Your task to perform on an android device: turn off smart reply in the gmail app Image 0: 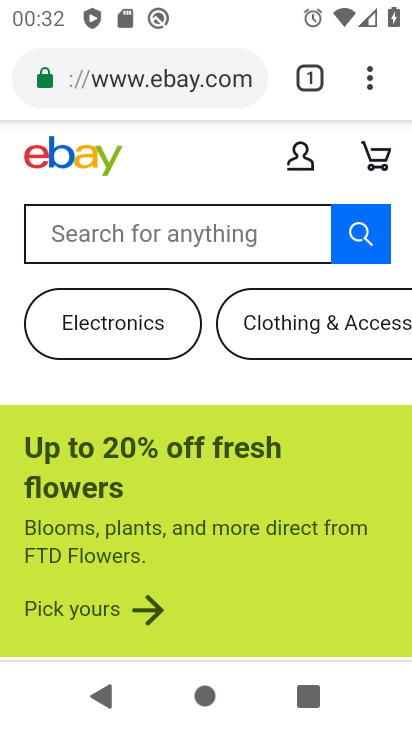
Step 0: press home button
Your task to perform on an android device: turn off smart reply in the gmail app Image 1: 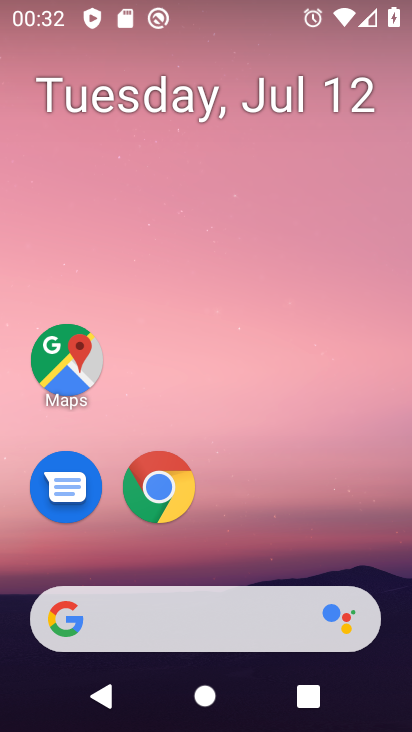
Step 1: drag from (337, 548) to (329, 152)
Your task to perform on an android device: turn off smart reply in the gmail app Image 2: 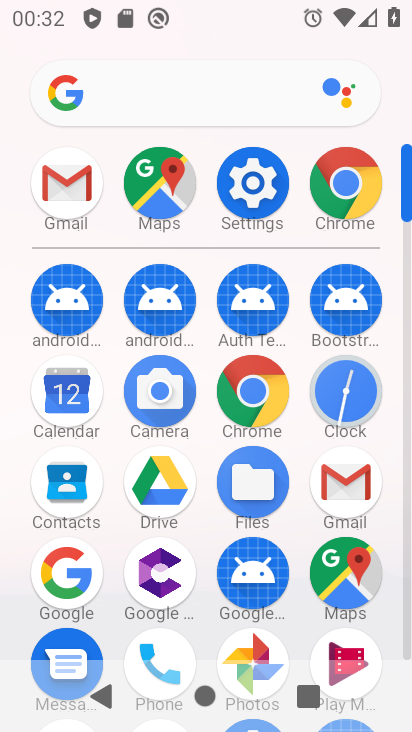
Step 2: click (347, 494)
Your task to perform on an android device: turn off smart reply in the gmail app Image 3: 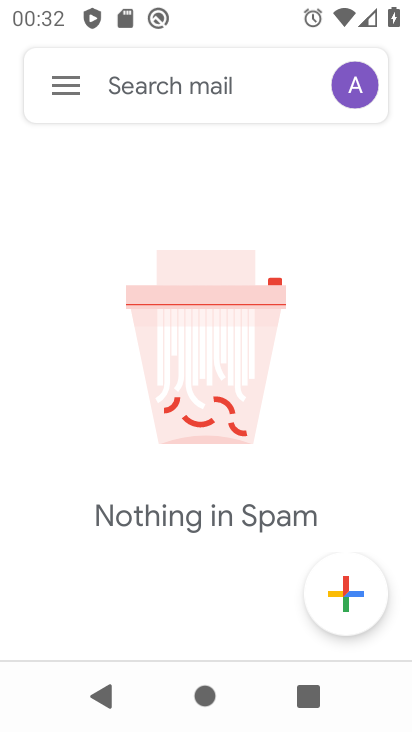
Step 3: click (56, 89)
Your task to perform on an android device: turn off smart reply in the gmail app Image 4: 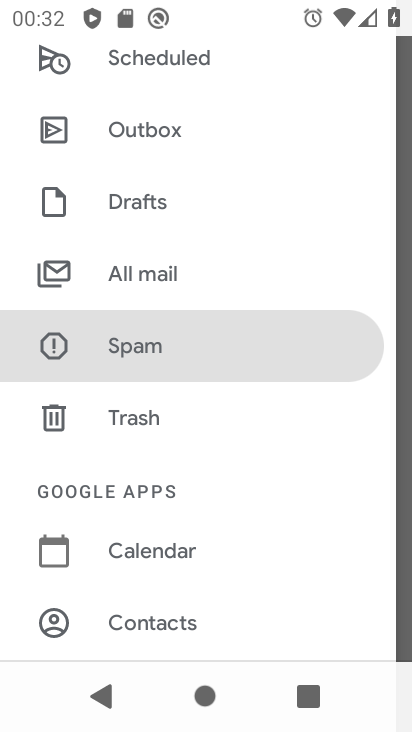
Step 4: drag from (324, 533) to (331, 313)
Your task to perform on an android device: turn off smart reply in the gmail app Image 5: 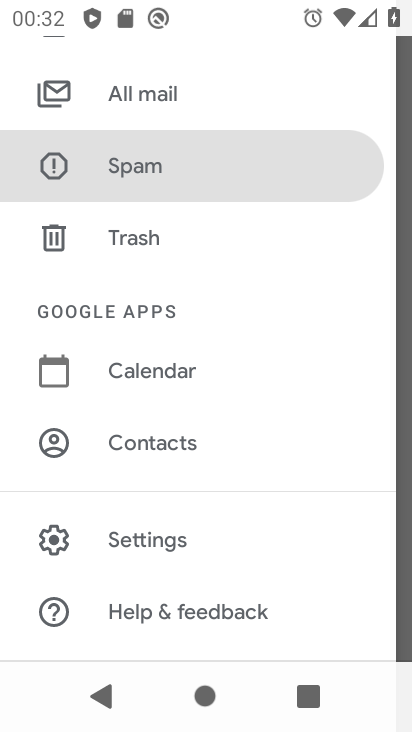
Step 5: click (182, 542)
Your task to perform on an android device: turn off smart reply in the gmail app Image 6: 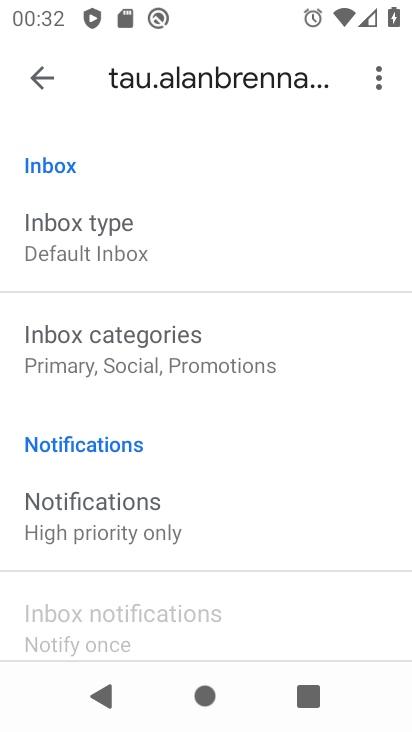
Step 6: task complete